Your task to perform on an android device: toggle data saver in the chrome app Image 0: 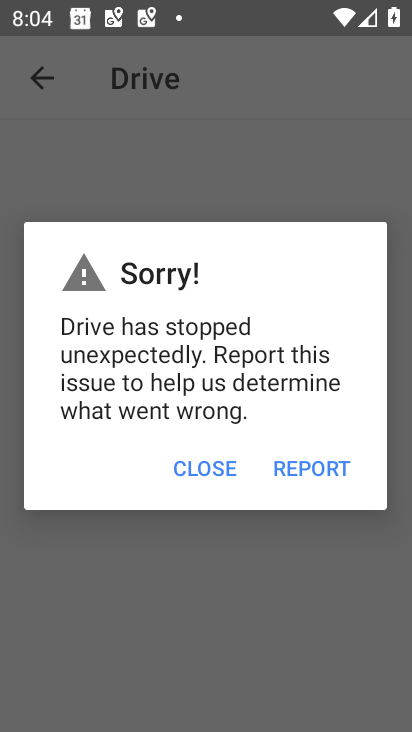
Step 0: press home button
Your task to perform on an android device: toggle data saver in the chrome app Image 1: 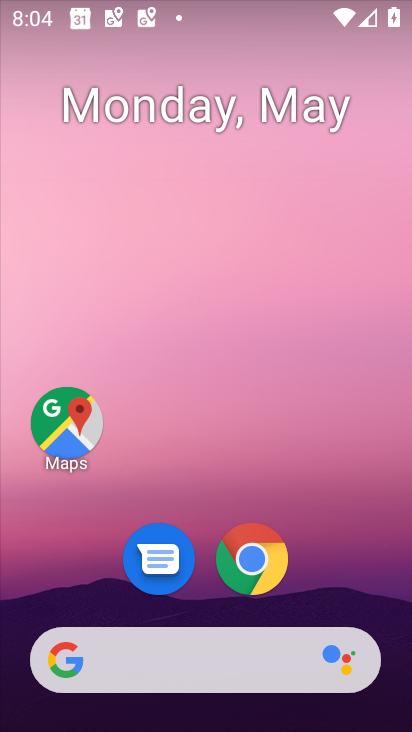
Step 1: drag from (397, 659) to (264, 58)
Your task to perform on an android device: toggle data saver in the chrome app Image 2: 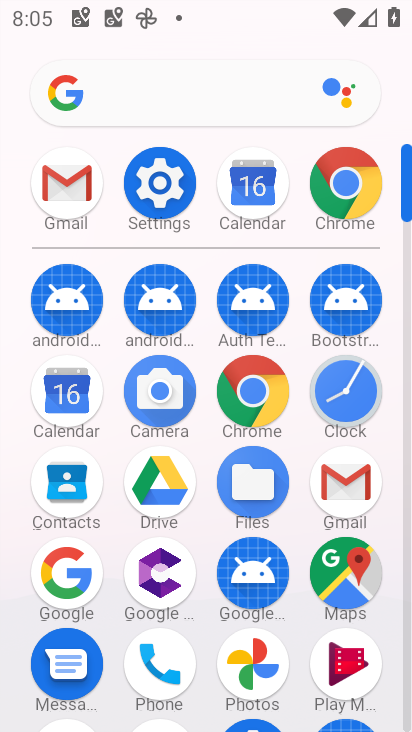
Step 2: click (232, 403)
Your task to perform on an android device: toggle data saver in the chrome app Image 3: 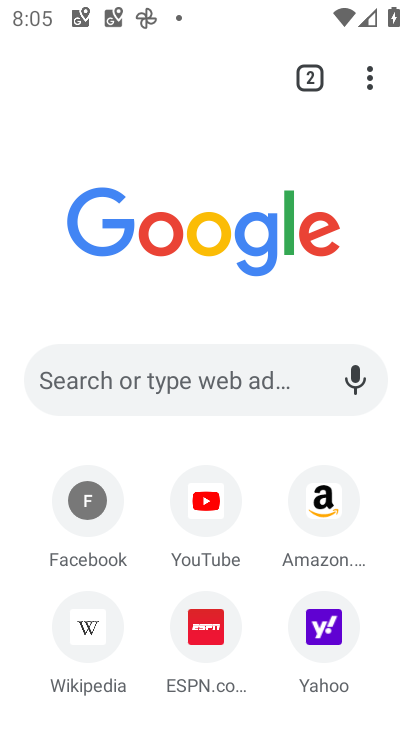
Step 3: click (367, 78)
Your task to perform on an android device: toggle data saver in the chrome app Image 4: 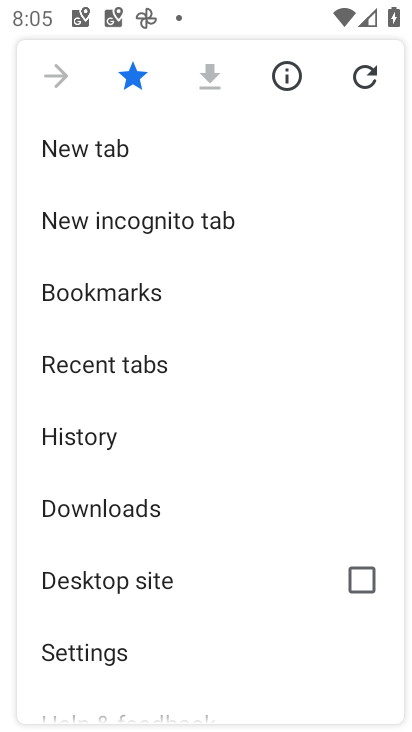
Step 4: click (116, 647)
Your task to perform on an android device: toggle data saver in the chrome app Image 5: 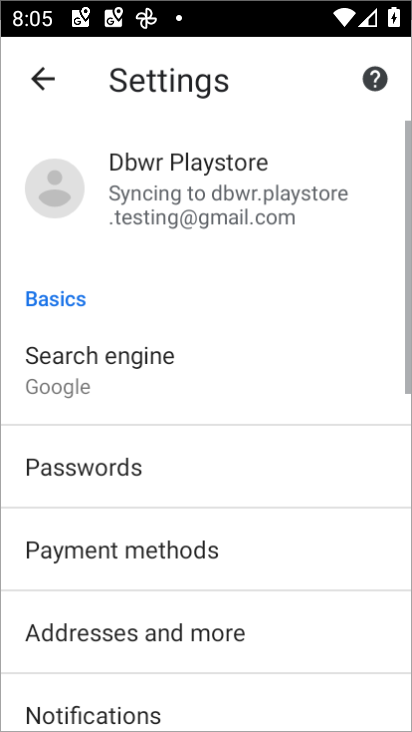
Step 5: drag from (116, 647) to (189, 171)
Your task to perform on an android device: toggle data saver in the chrome app Image 6: 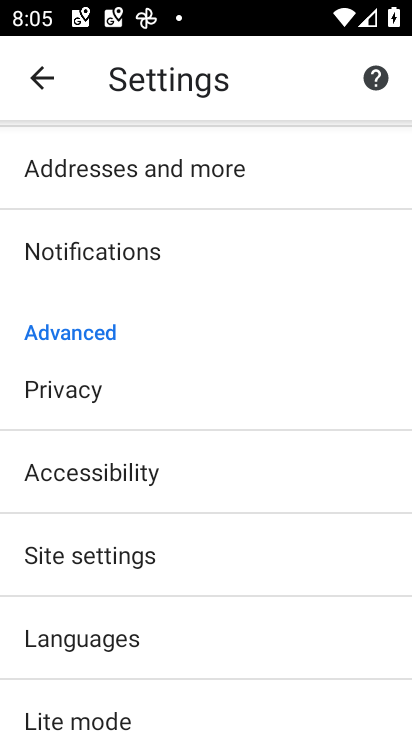
Step 6: click (115, 708)
Your task to perform on an android device: toggle data saver in the chrome app Image 7: 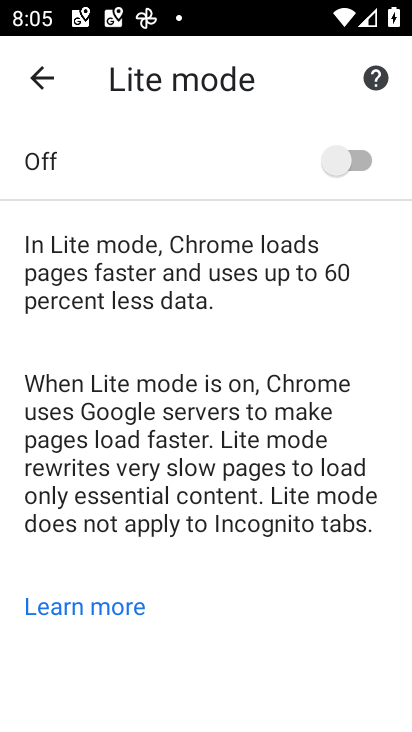
Step 7: click (333, 168)
Your task to perform on an android device: toggle data saver in the chrome app Image 8: 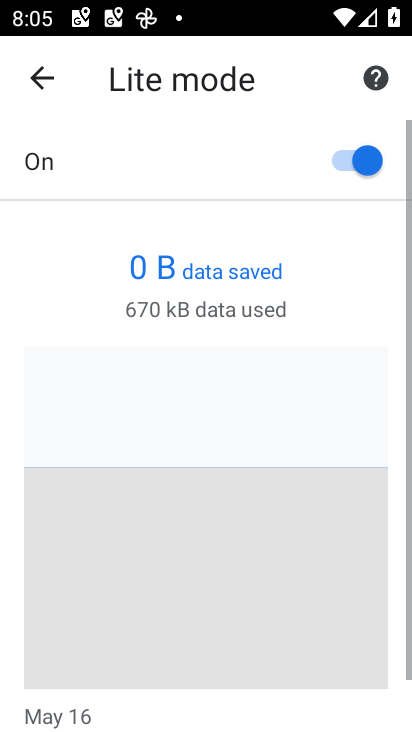
Step 8: task complete